Your task to perform on an android device: See recent photos Image 0: 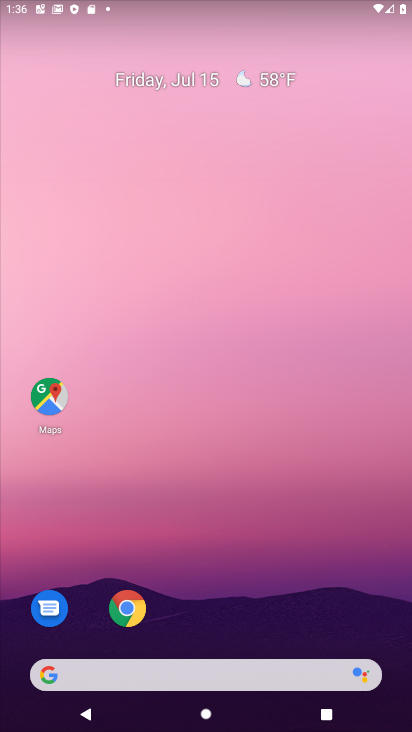
Step 0: drag from (293, 625) to (314, 71)
Your task to perform on an android device: See recent photos Image 1: 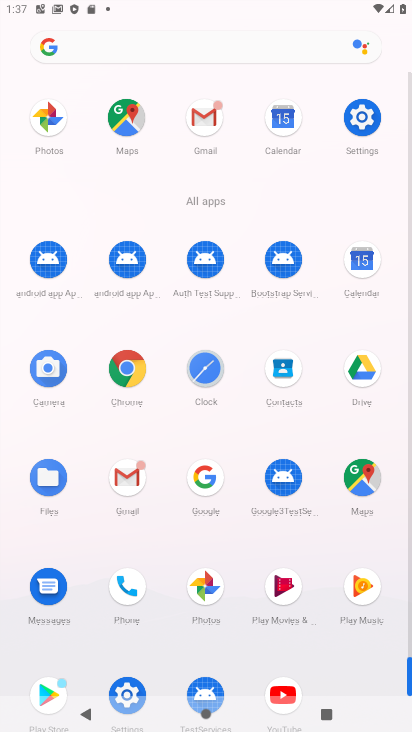
Step 1: click (201, 580)
Your task to perform on an android device: See recent photos Image 2: 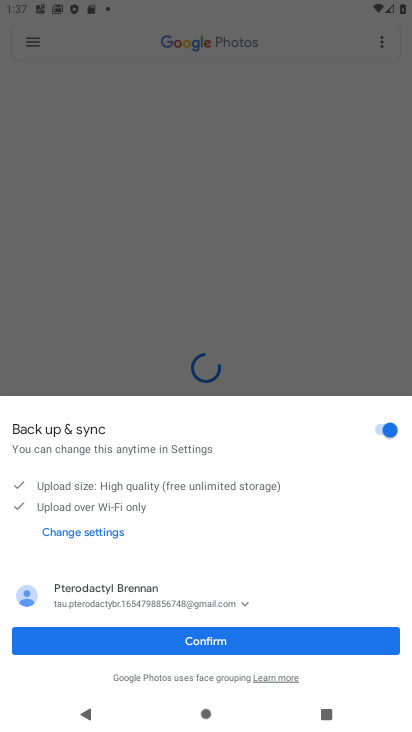
Step 2: click (260, 645)
Your task to perform on an android device: See recent photos Image 3: 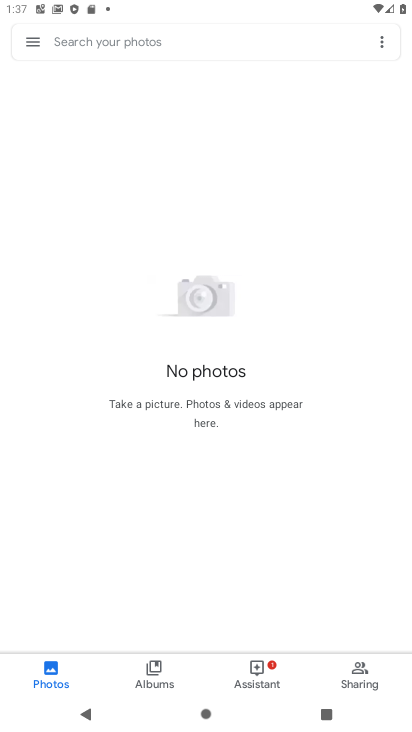
Step 3: task complete